Your task to perform on an android device: Open Google Chrome and click the shortcut for Amazon.com Image 0: 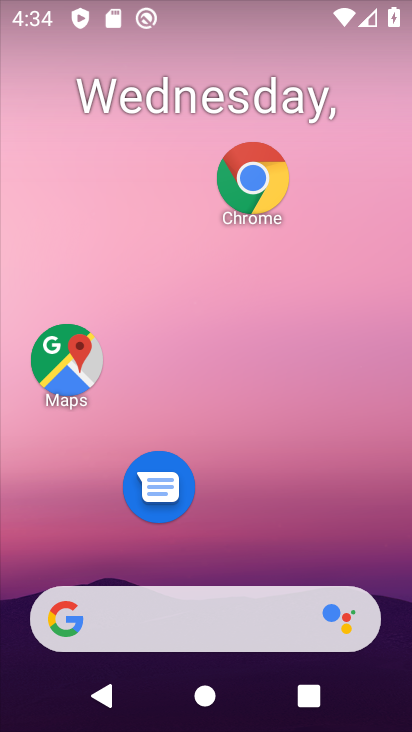
Step 0: click (264, 184)
Your task to perform on an android device: Open Google Chrome and click the shortcut for Amazon.com Image 1: 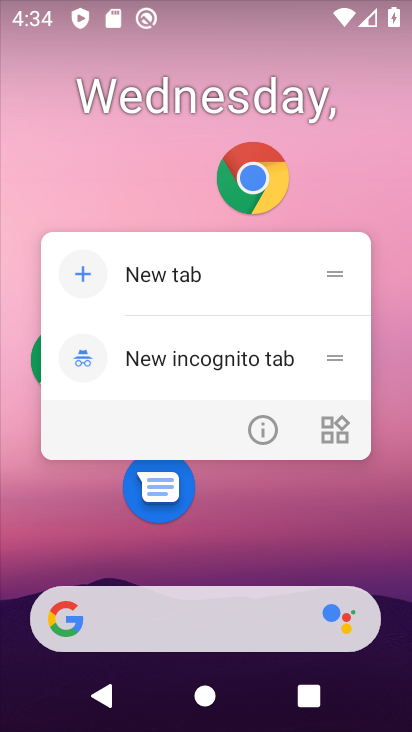
Step 1: click (253, 182)
Your task to perform on an android device: Open Google Chrome and click the shortcut for Amazon.com Image 2: 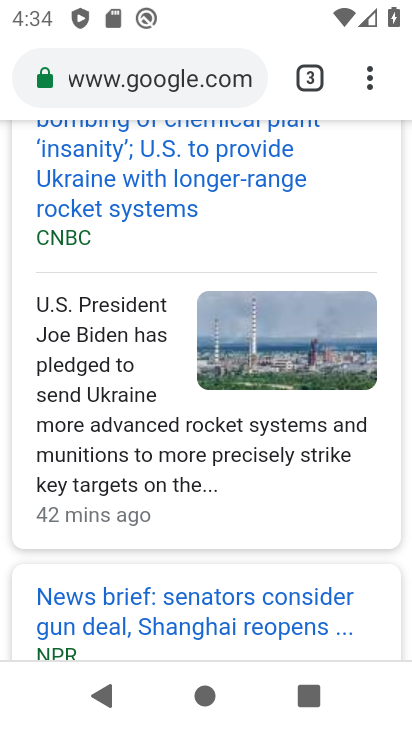
Step 2: drag from (366, 77) to (166, 181)
Your task to perform on an android device: Open Google Chrome and click the shortcut for Amazon.com Image 3: 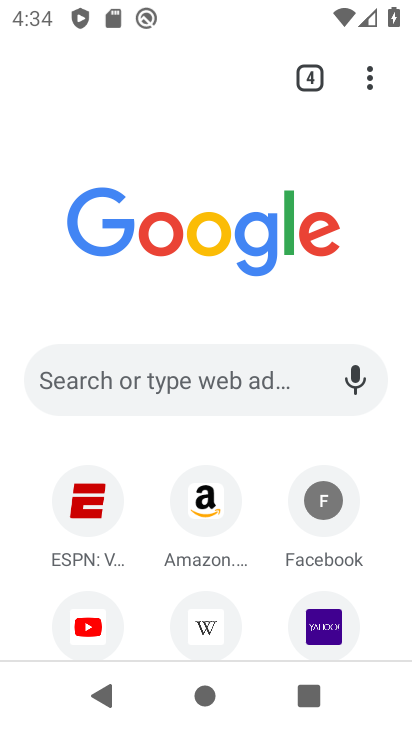
Step 3: click (204, 488)
Your task to perform on an android device: Open Google Chrome and click the shortcut for Amazon.com Image 4: 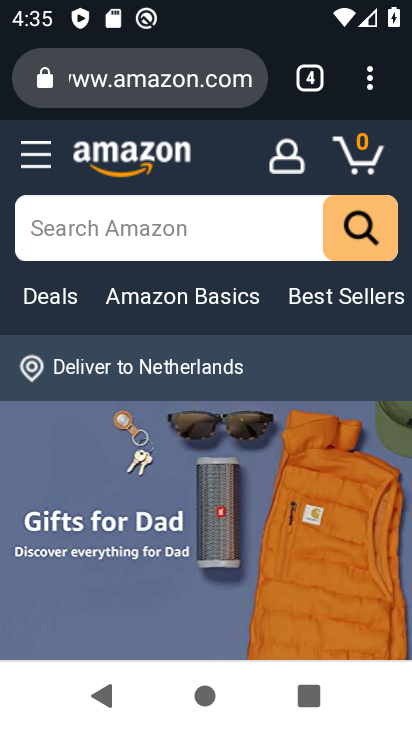
Step 4: task complete